Your task to perform on an android device: Open battery settings Image 0: 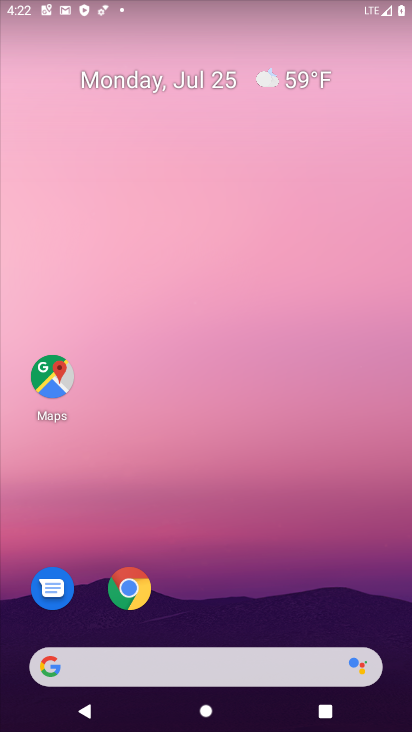
Step 0: drag from (299, 565) to (351, 6)
Your task to perform on an android device: Open battery settings Image 1: 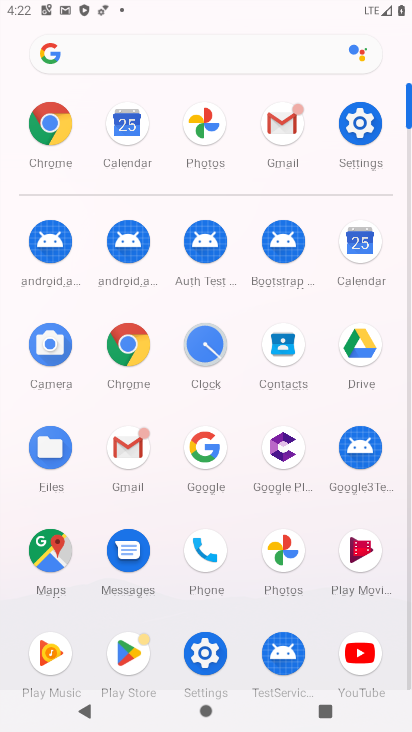
Step 1: click (203, 652)
Your task to perform on an android device: Open battery settings Image 2: 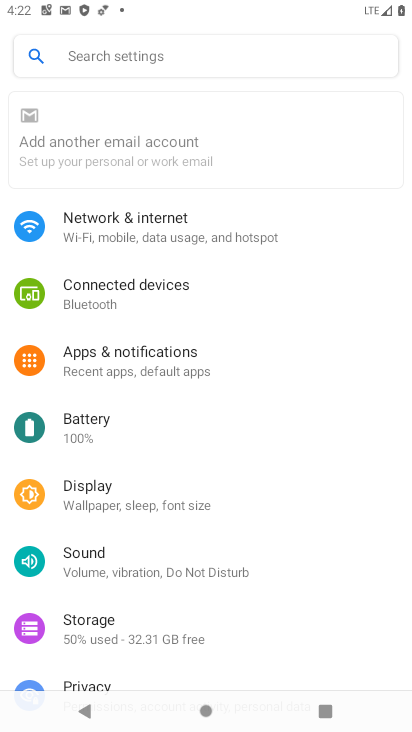
Step 2: click (49, 319)
Your task to perform on an android device: Open battery settings Image 3: 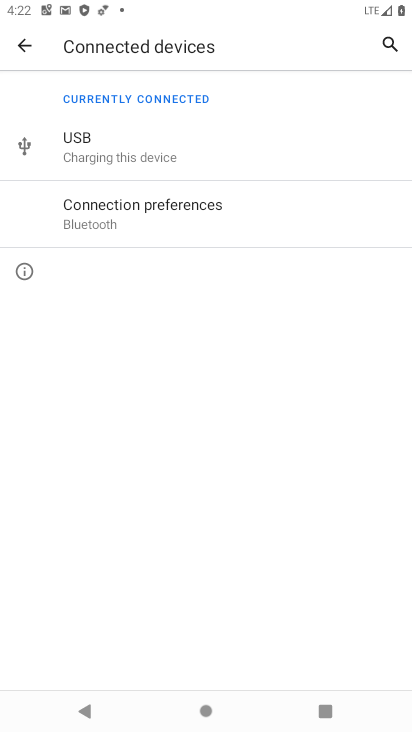
Step 3: click (30, 51)
Your task to perform on an android device: Open battery settings Image 4: 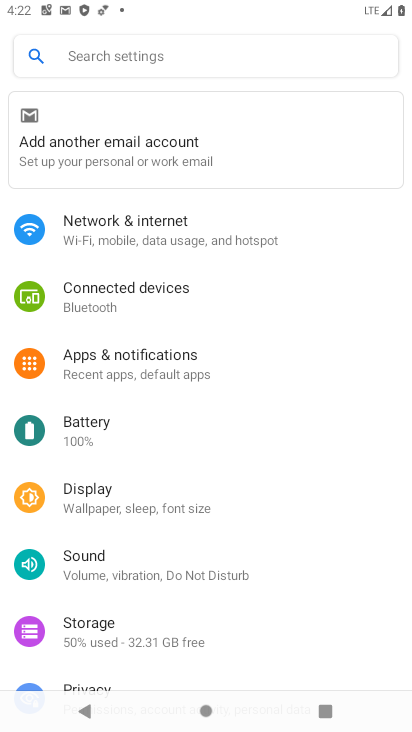
Step 4: click (94, 428)
Your task to perform on an android device: Open battery settings Image 5: 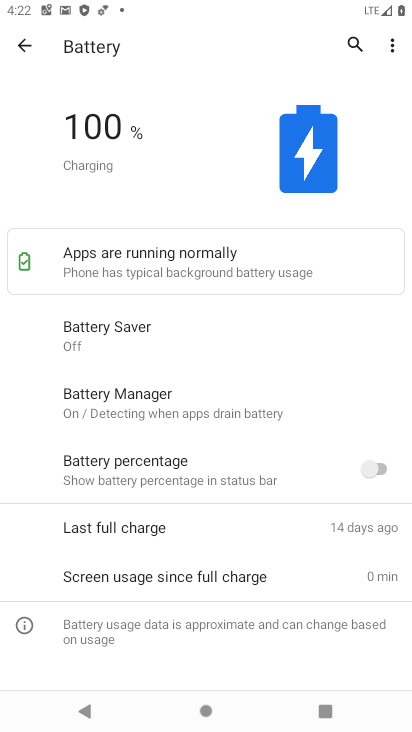
Step 5: task complete